Your task to perform on an android device: open app "Move to iOS" (install if not already installed) and go to login screen Image 0: 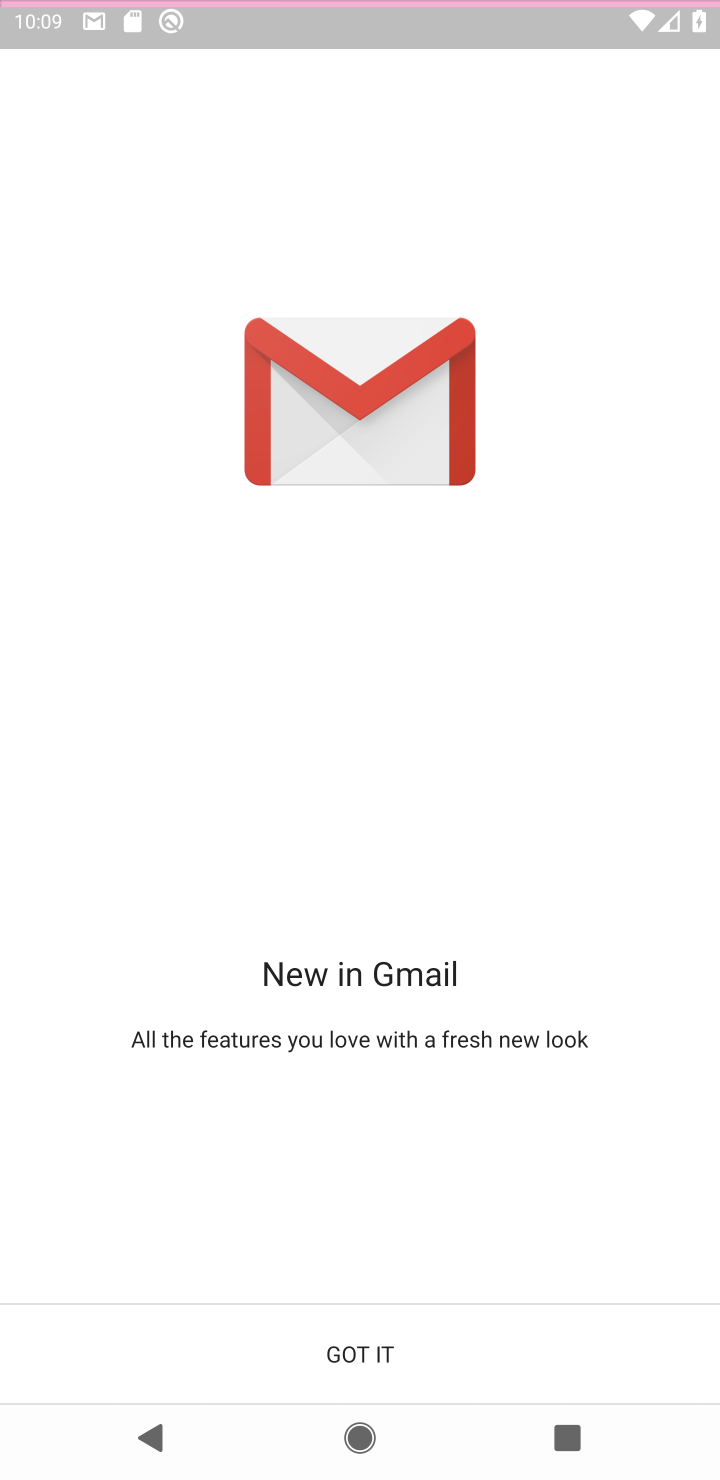
Step 0: press home button
Your task to perform on an android device: open app "Move to iOS" (install if not already installed) and go to login screen Image 1: 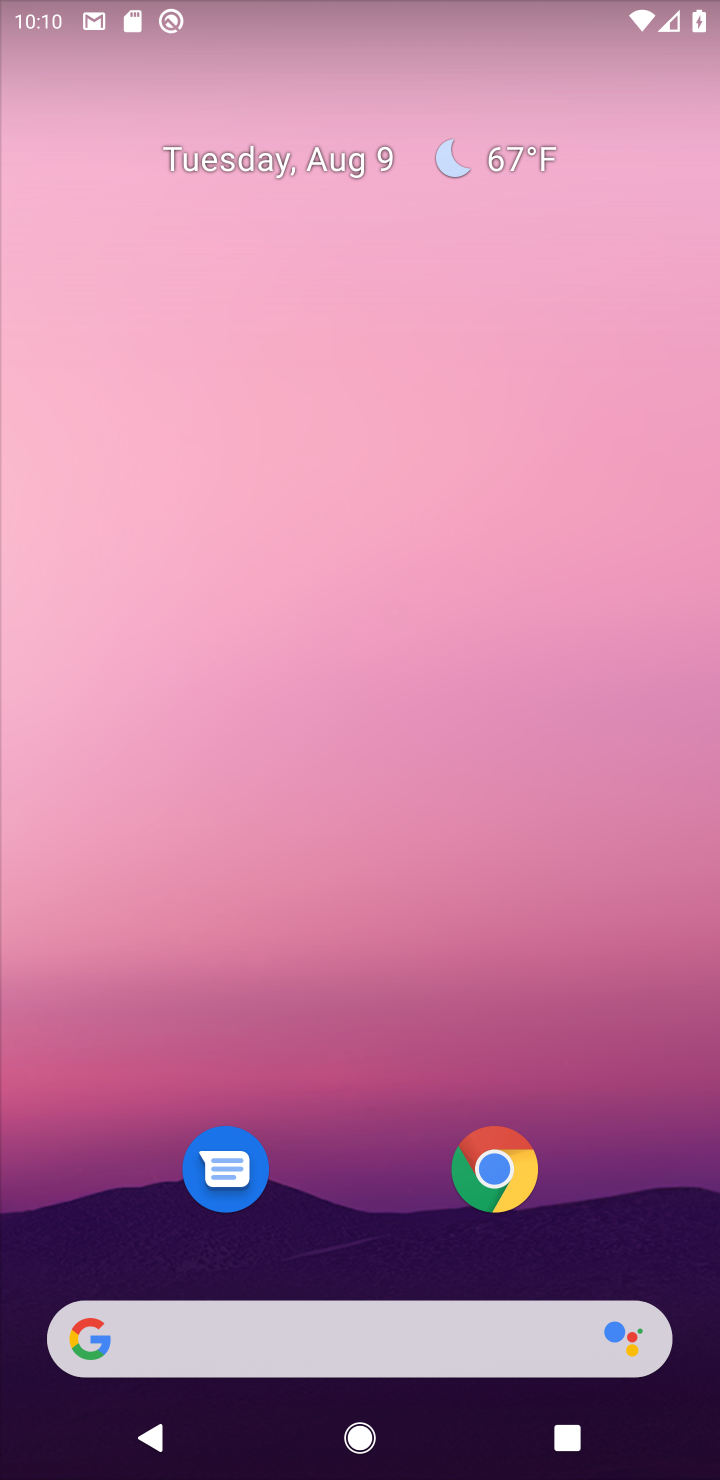
Step 1: drag from (370, 929) to (440, 193)
Your task to perform on an android device: open app "Move to iOS" (install if not already installed) and go to login screen Image 2: 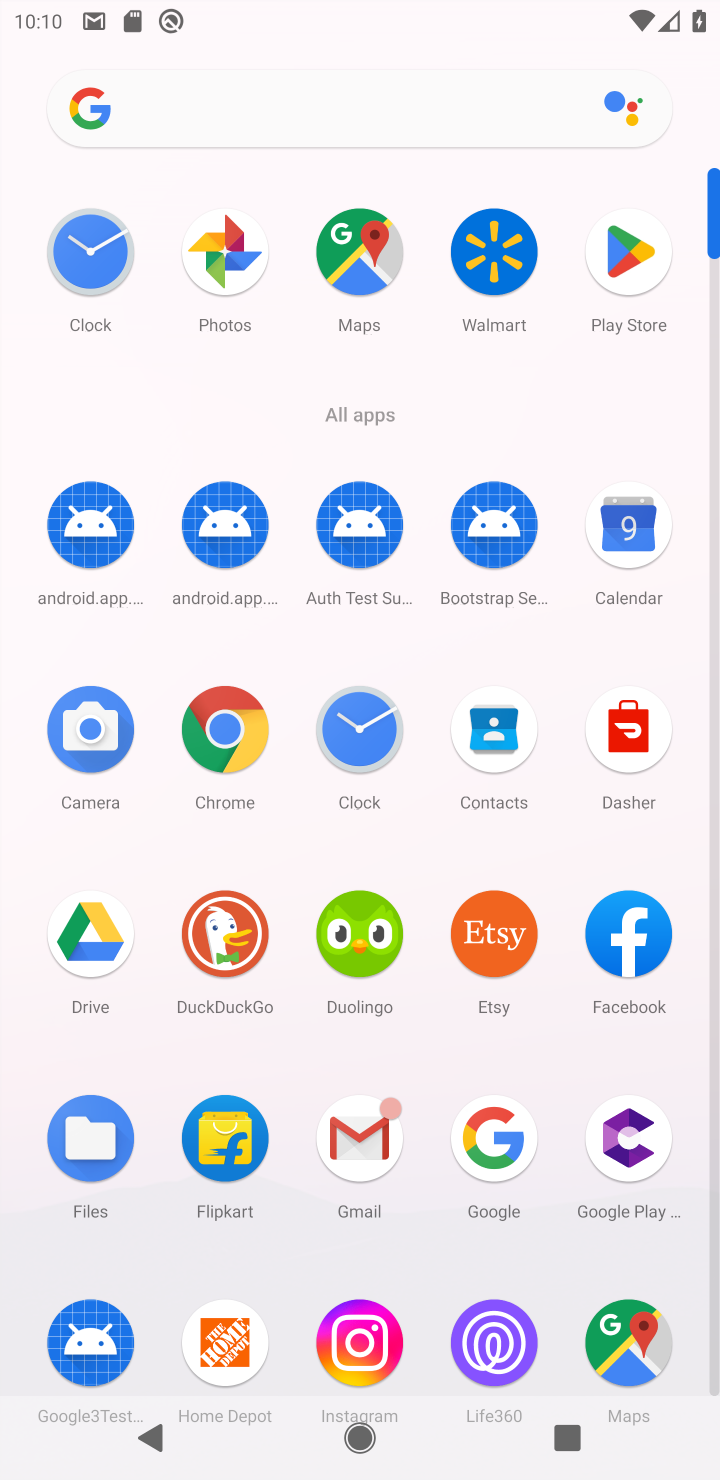
Step 2: click (624, 245)
Your task to perform on an android device: open app "Move to iOS" (install if not already installed) and go to login screen Image 3: 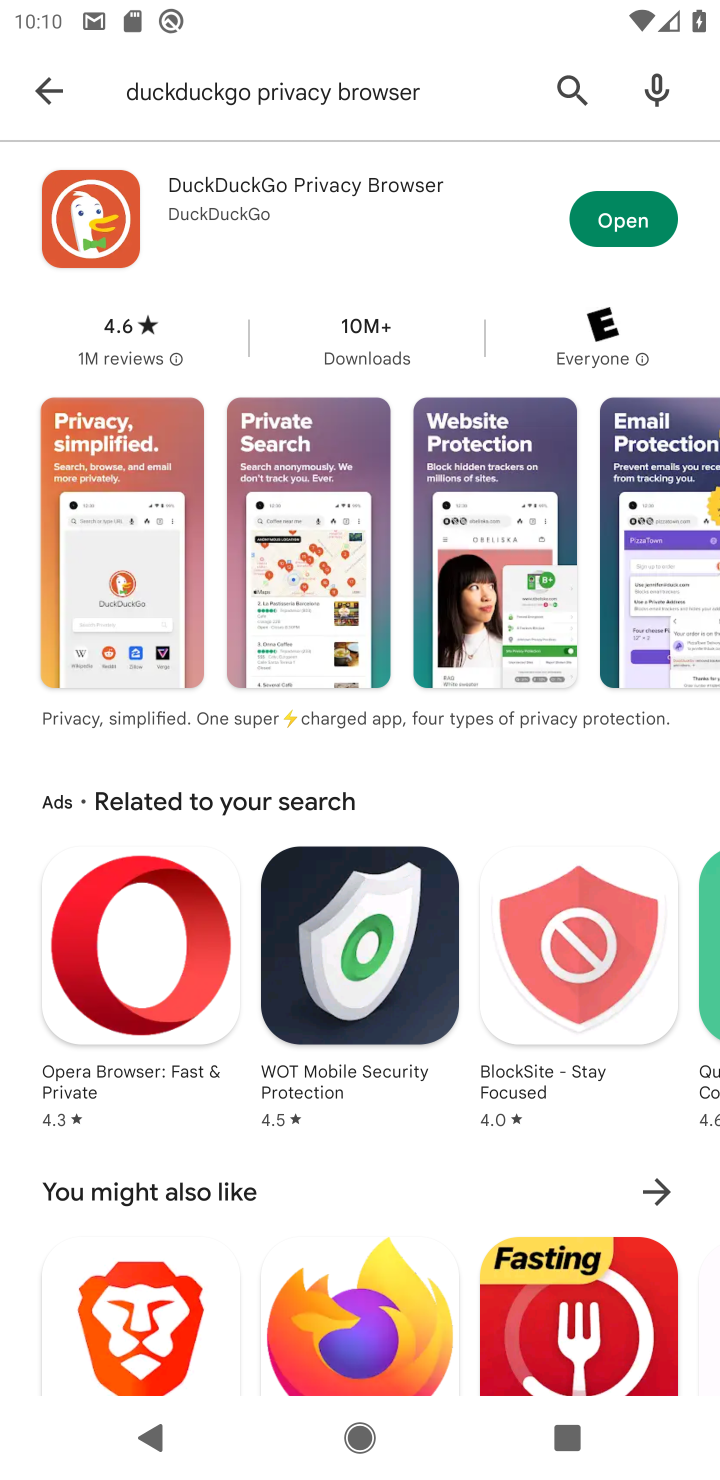
Step 3: click (569, 84)
Your task to perform on an android device: open app "Move to iOS" (install if not already installed) and go to login screen Image 4: 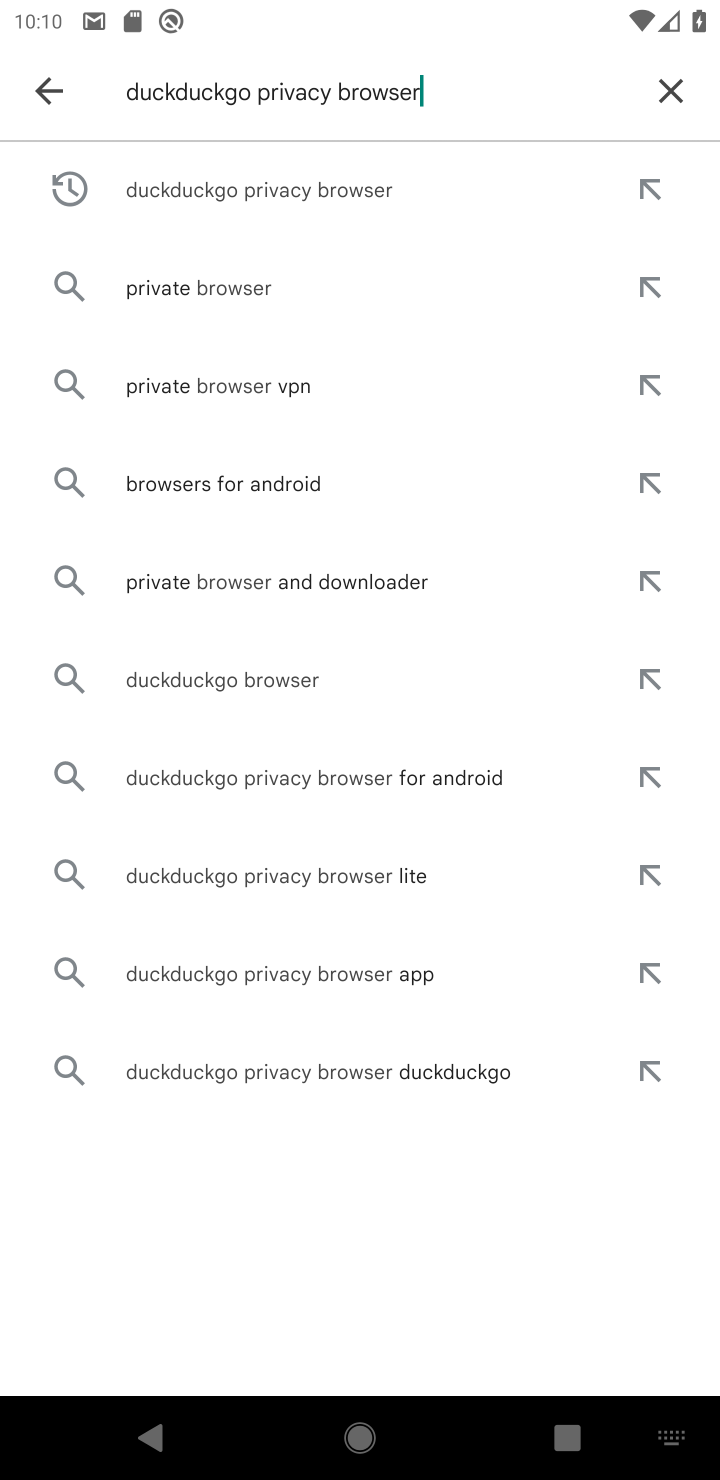
Step 4: click (666, 90)
Your task to perform on an android device: open app "Move to iOS" (install if not already installed) and go to login screen Image 5: 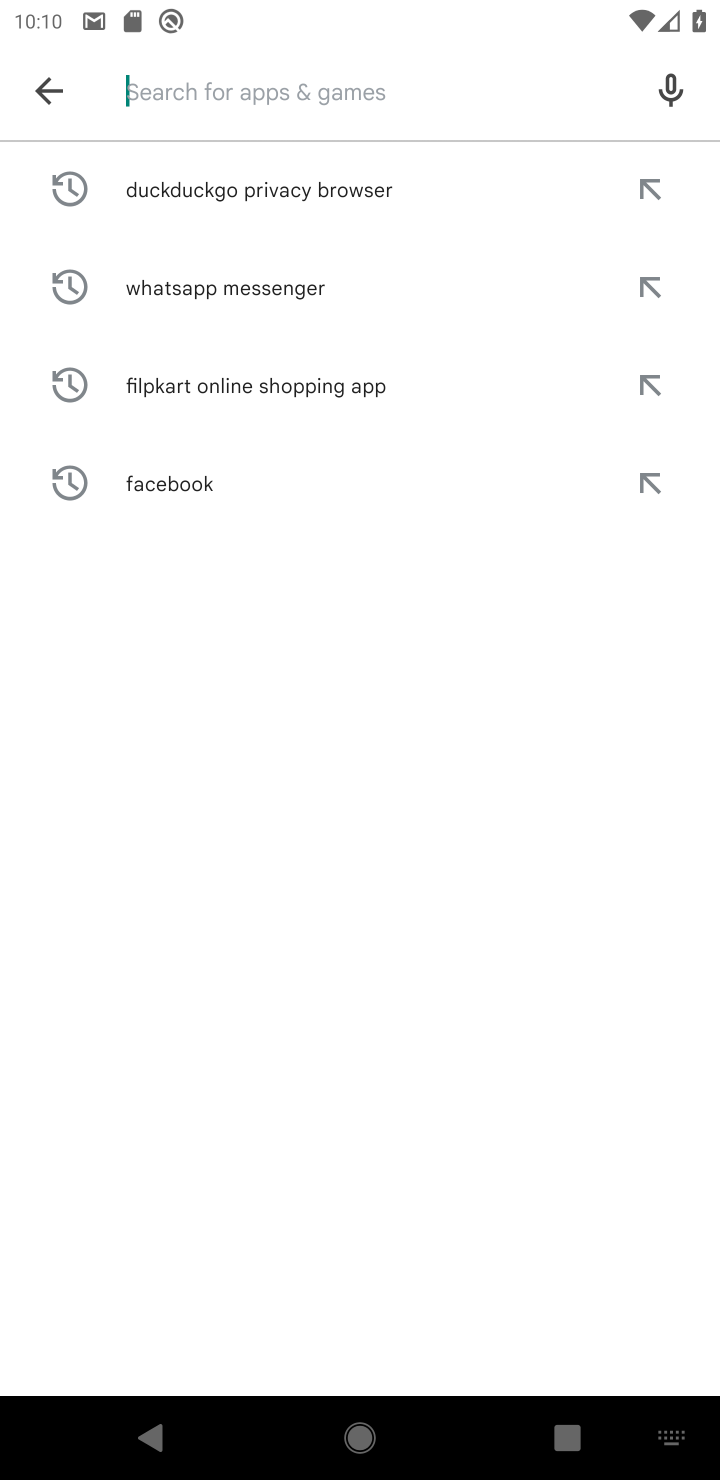
Step 5: type "move to ios "
Your task to perform on an android device: open app "Move to iOS" (install if not already installed) and go to login screen Image 6: 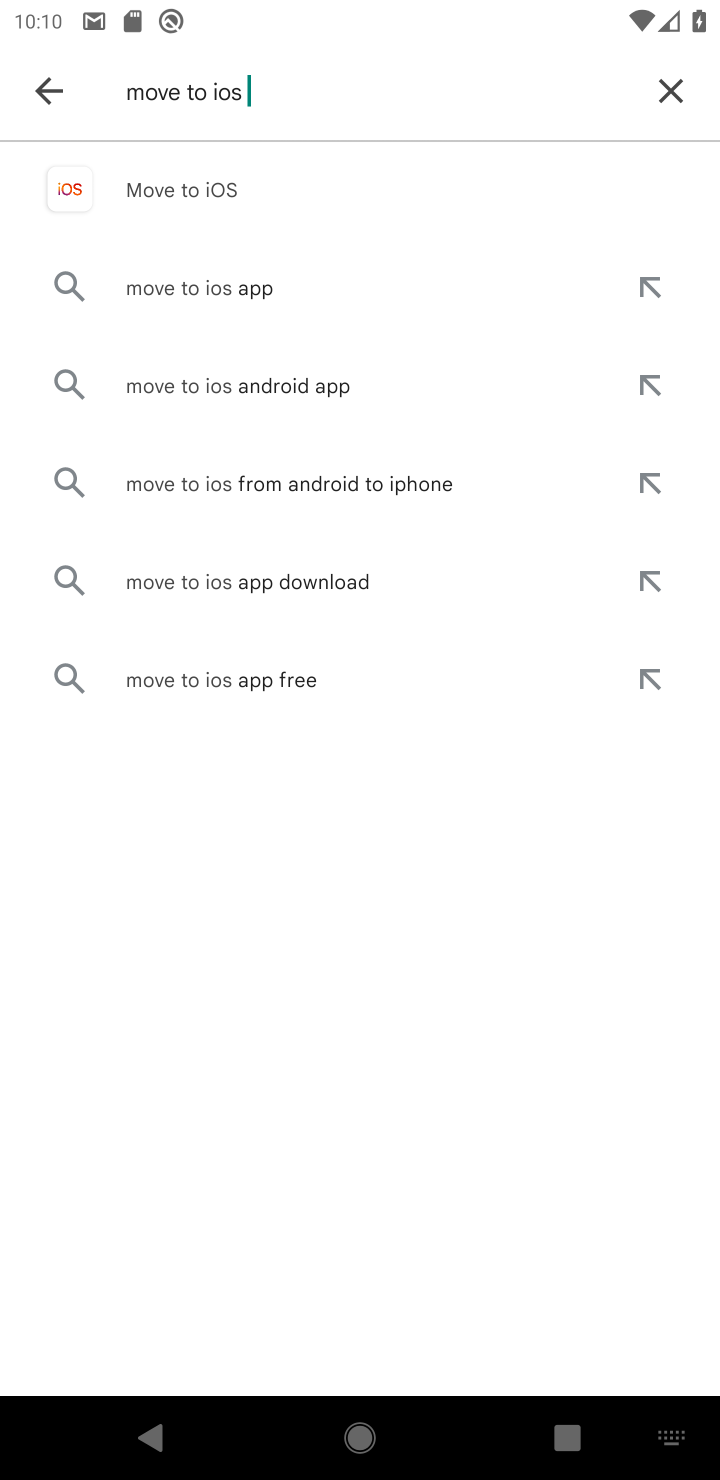
Step 6: click (233, 183)
Your task to perform on an android device: open app "Move to iOS" (install if not already installed) and go to login screen Image 7: 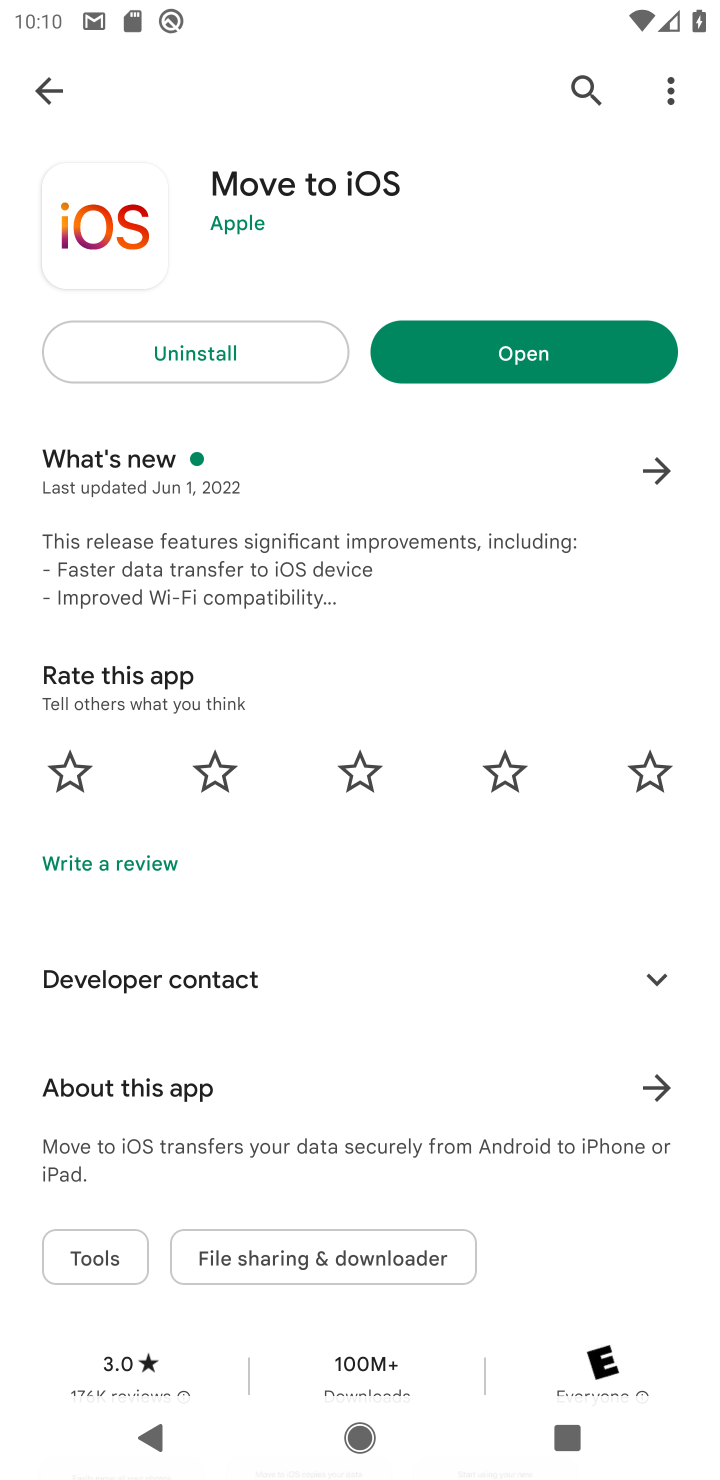
Step 7: click (536, 347)
Your task to perform on an android device: open app "Move to iOS" (install if not already installed) and go to login screen Image 8: 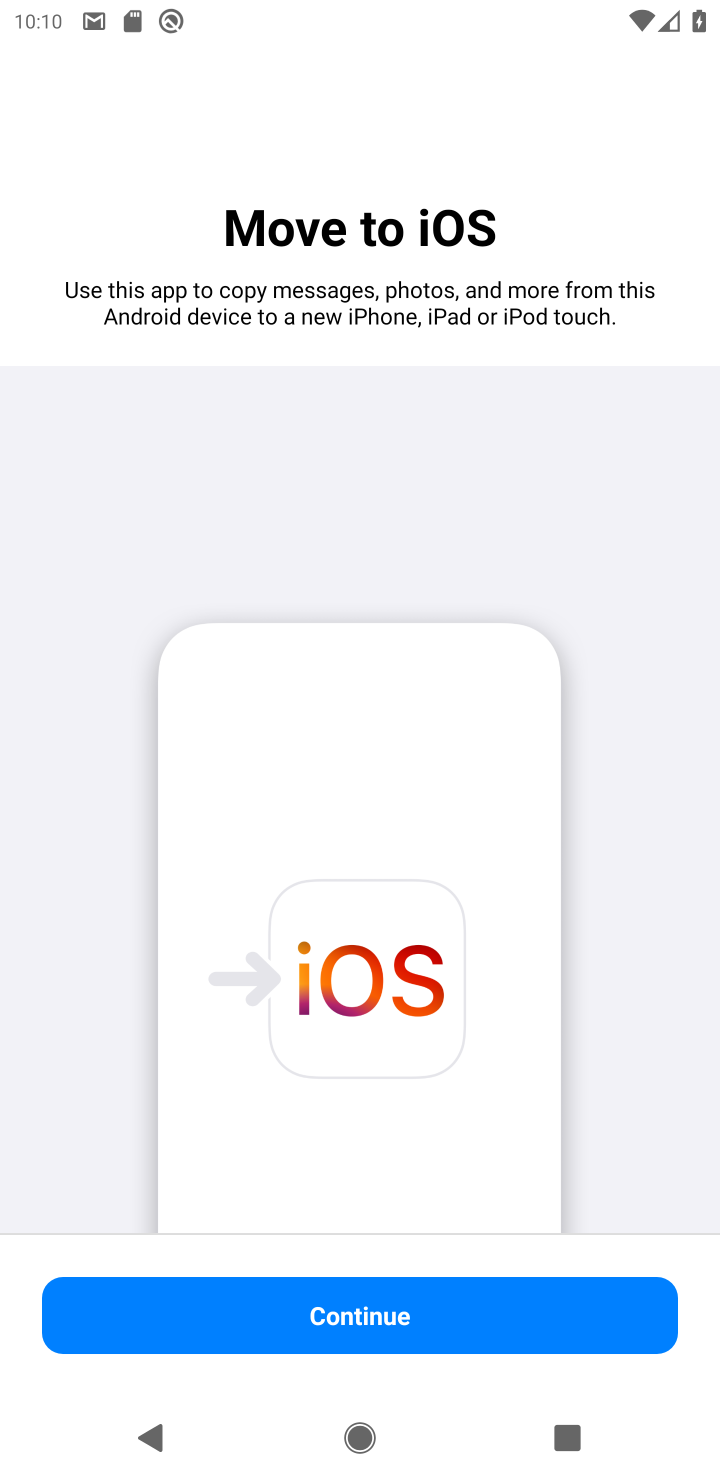
Step 8: click (461, 1319)
Your task to perform on an android device: open app "Move to iOS" (install if not already installed) and go to login screen Image 9: 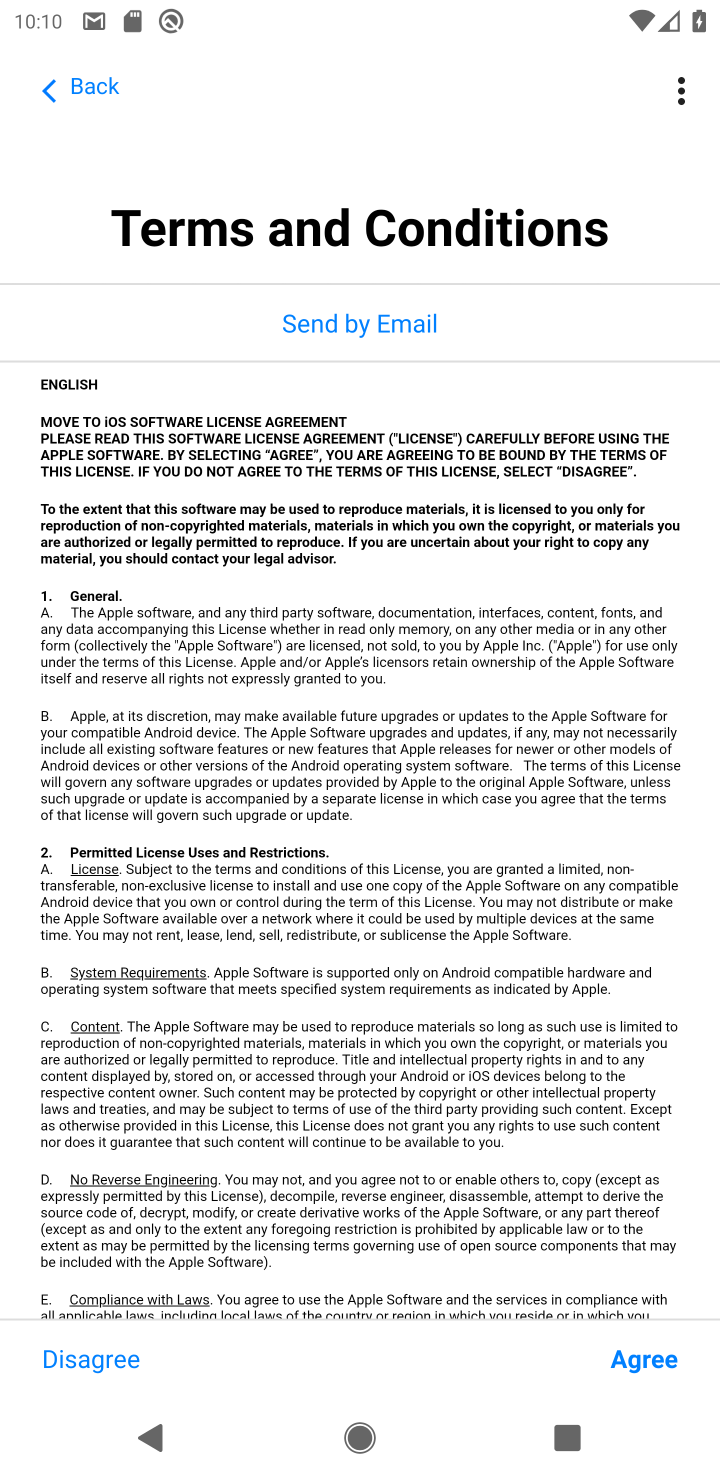
Step 9: drag from (492, 1114) to (489, 398)
Your task to perform on an android device: open app "Move to iOS" (install if not already installed) and go to login screen Image 10: 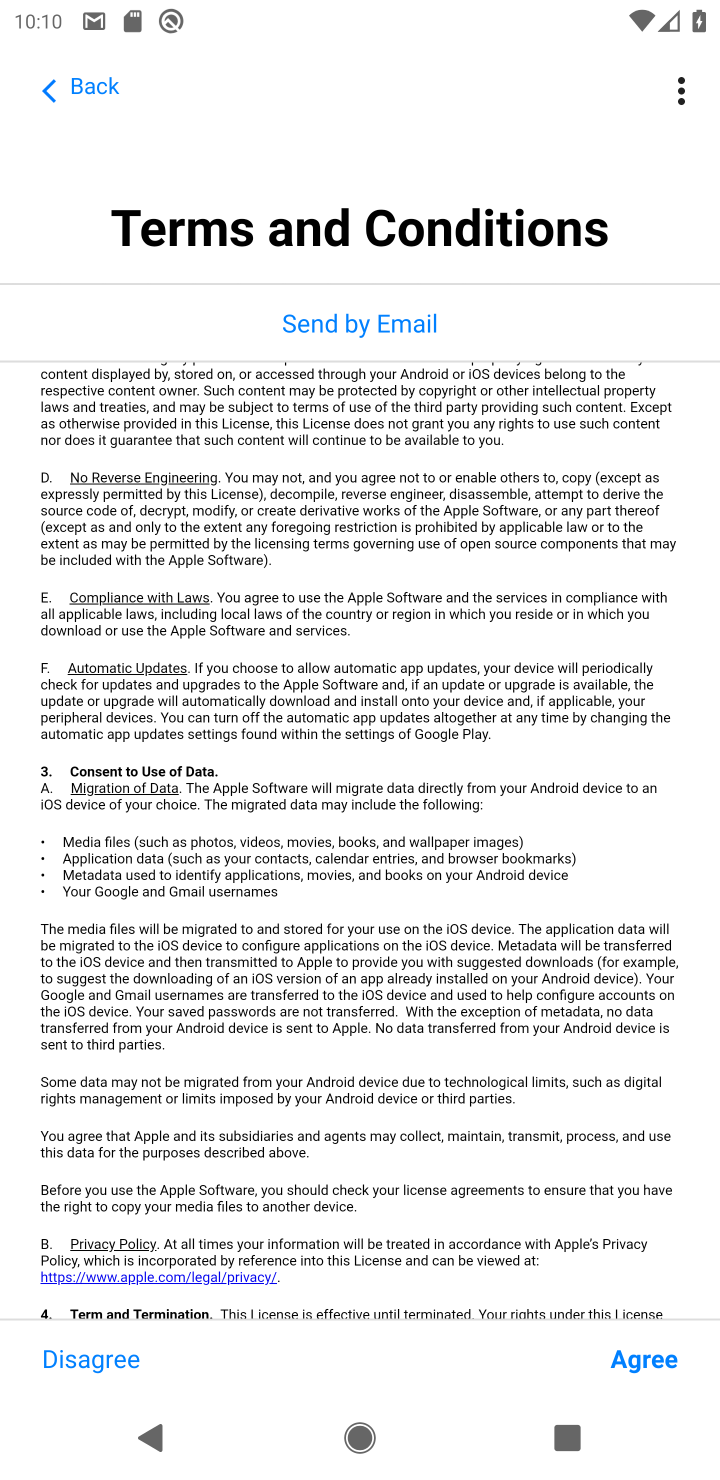
Step 10: drag from (424, 1064) to (485, 371)
Your task to perform on an android device: open app "Move to iOS" (install if not already installed) and go to login screen Image 11: 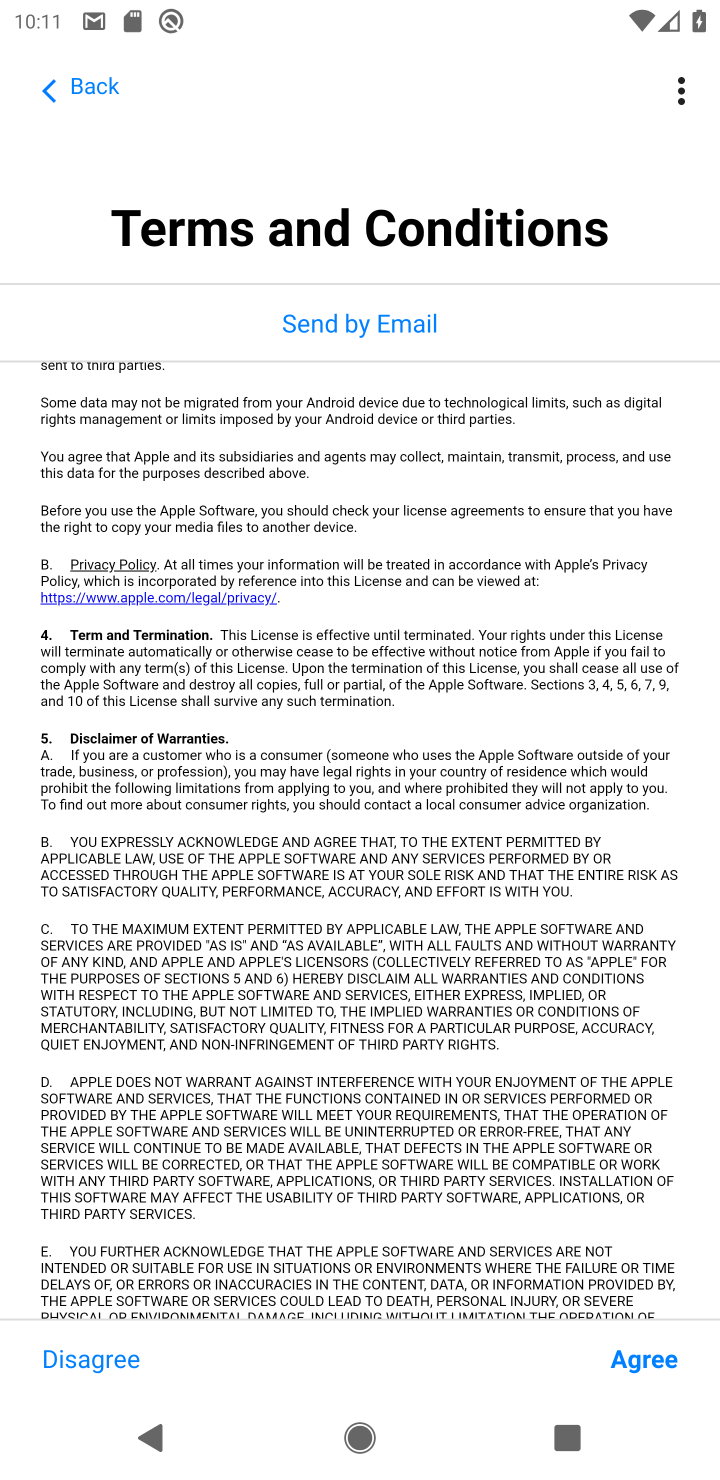
Step 11: click (637, 1364)
Your task to perform on an android device: open app "Move to iOS" (install if not already installed) and go to login screen Image 12: 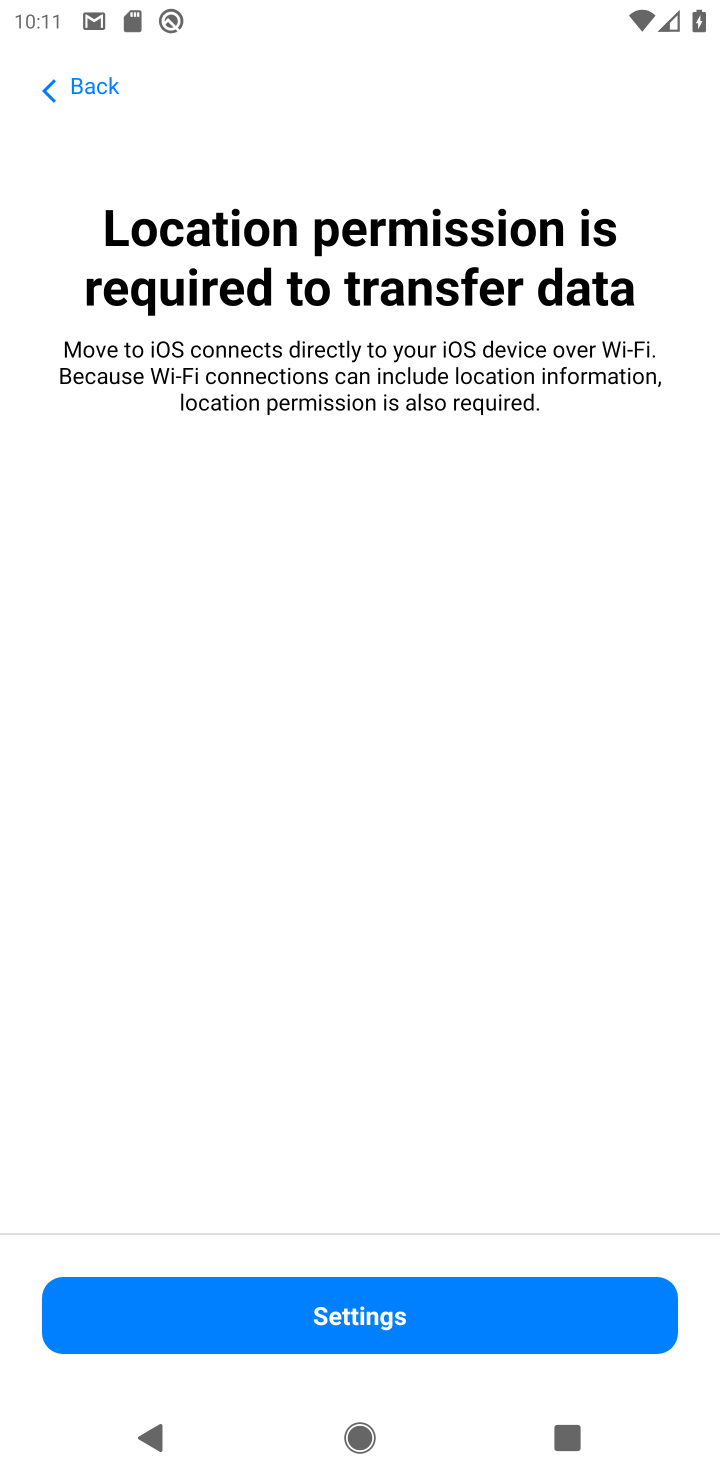
Step 12: task complete